Your task to perform on an android device: remove spam from my inbox in the gmail app Image 0: 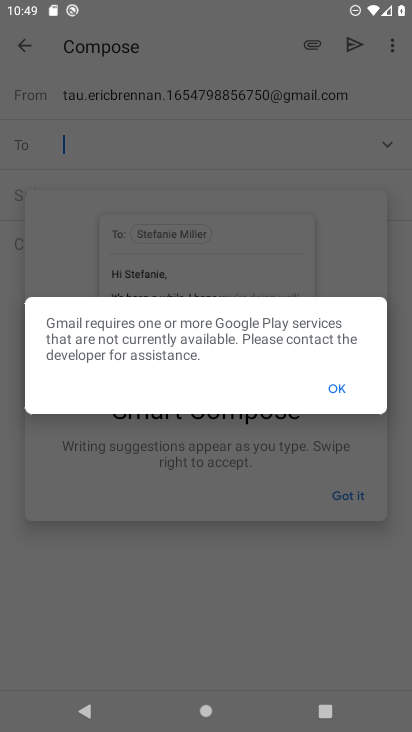
Step 0: press home button
Your task to perform on an android device: remove spam from my inbox in the gmail app Image 1: 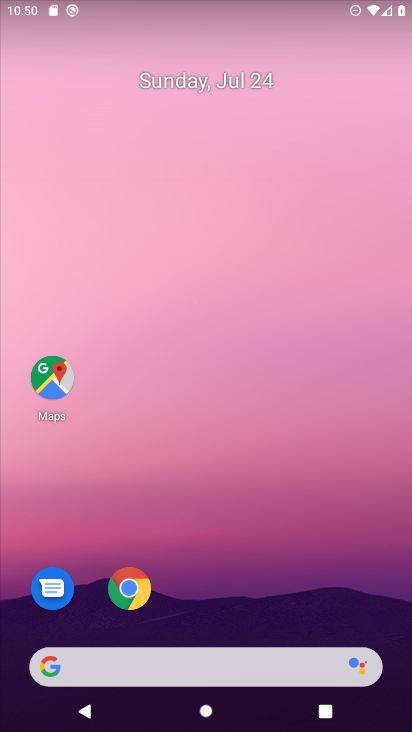
Step 1: drag from (230, 538) to (291, 229)
Your task to perform on an android device: remove spam from my inbox in the gmail app Image 2: 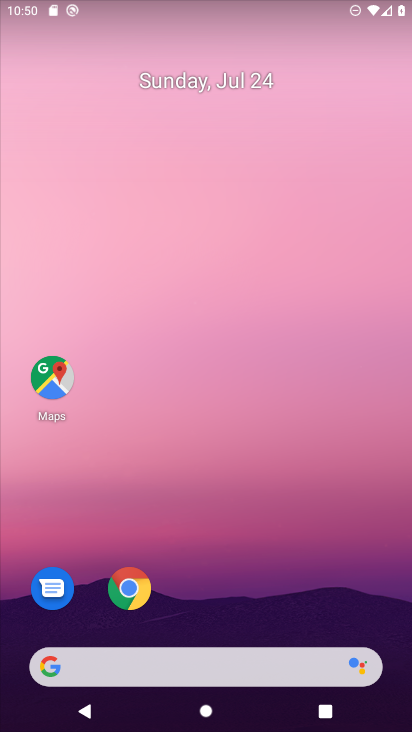
Step 2: drag from (120, 695) to (130, 40)
Your task to perform on an android device: remove spam from my inbox in the gmail app Image 3: 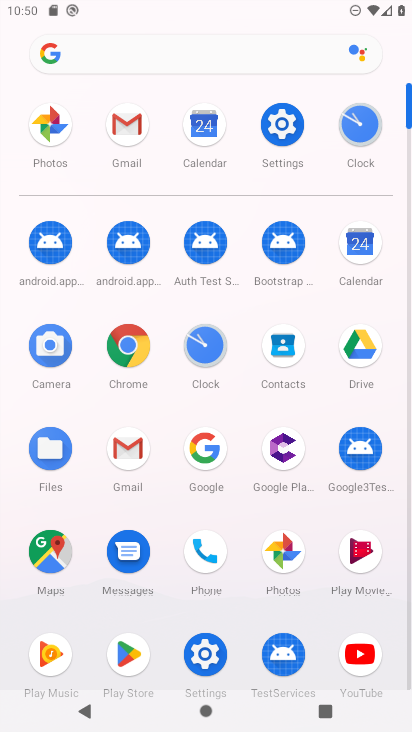
Step 3: click (133, 125)
Your task to perform on an android device: remove spam from my inbox in the gmail app Image 4: 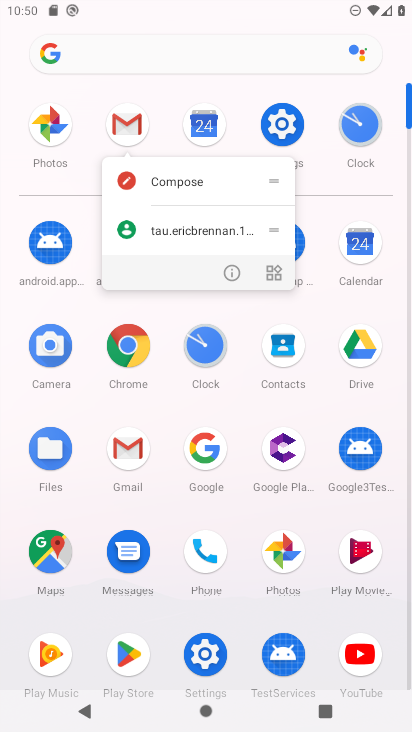
Step 4: click (139, 119)
Your task to perform on an android device: remove spam from my inbox in the gmail app Image 5: 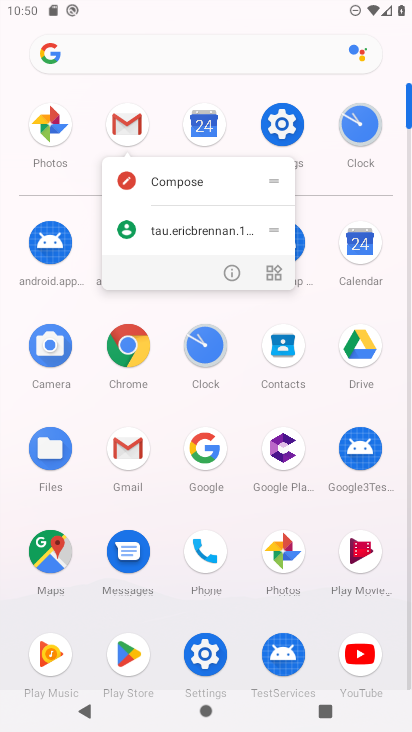
Step 5: click (139, 119)
Your task to perform on an android device: remove spam from my inbox in the gmail app Image 6: 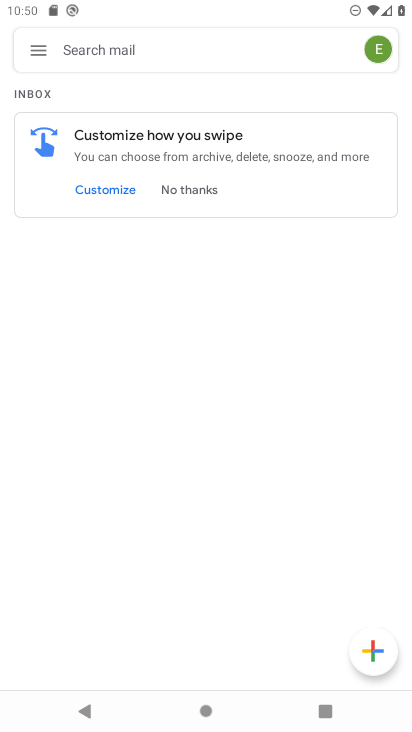
Step 6: click (35, 56)
Your task to perform on an android device: remove spam from my inbox in the gmail app Image 7: 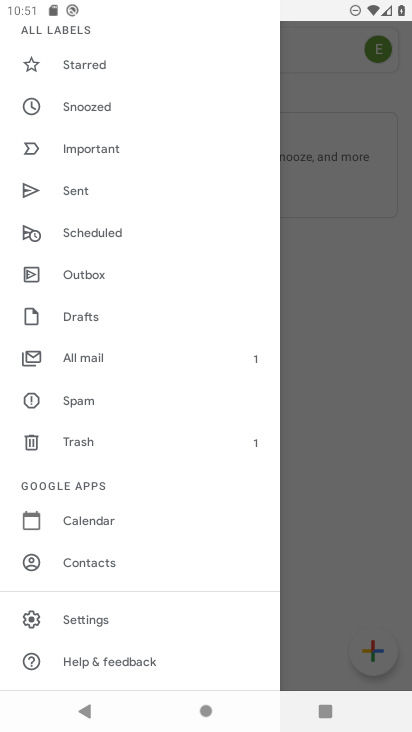
Step 7: click (90, 397)
Your task to perform on an android device: remove spam from my inbox in the gmail app Image 8: 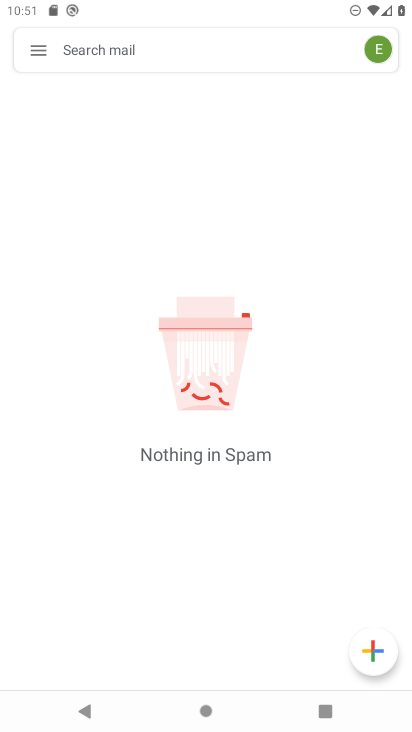
Step 8: task complete